Your task to perform on an android device: open app "Google Home" Image 0: 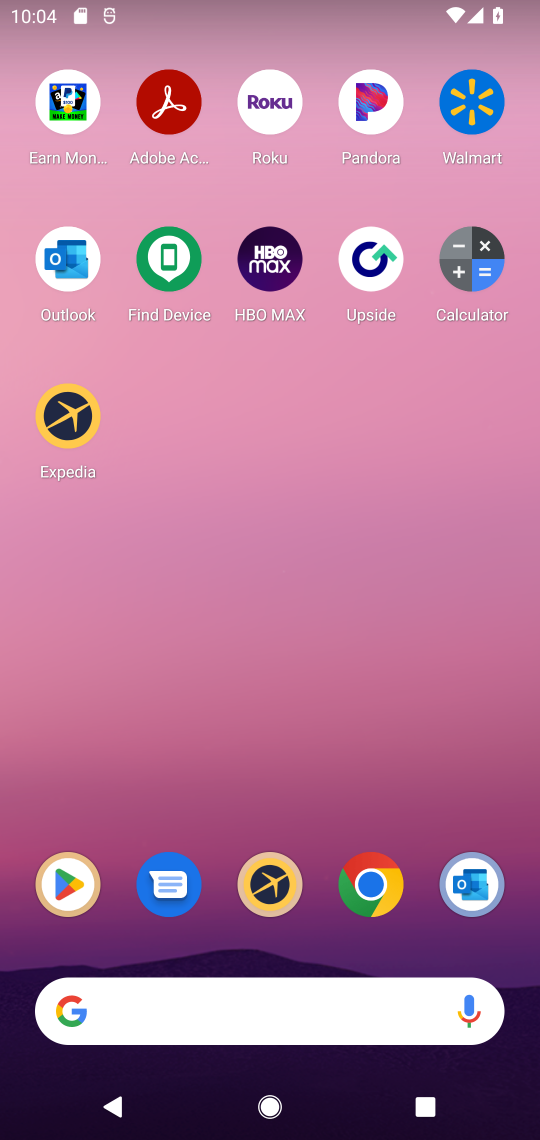
Step 0: click (73, 895)
Your task to perform on an android device: open app "Google Home" Image 1: 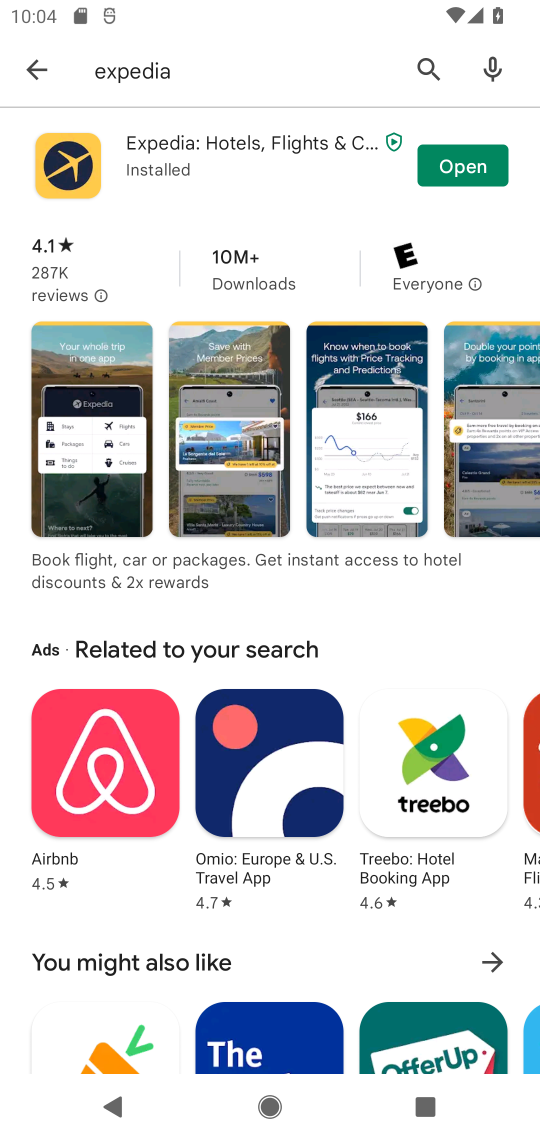
Step 1: click (202, 77)
Your task to perform on an android device: open app "Google Home" Image 2: 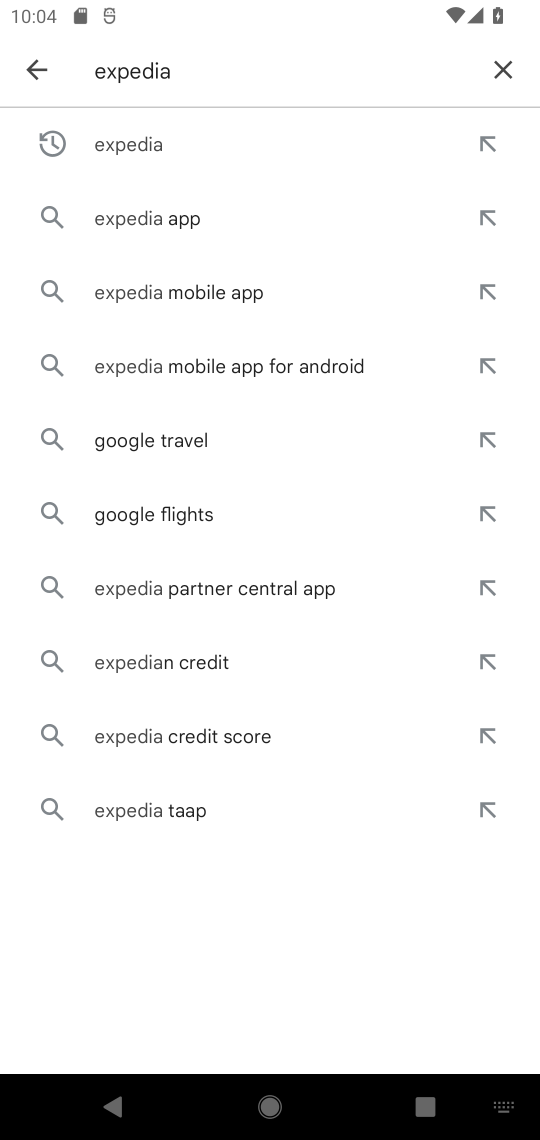
Step 2: click (502, 60)
Your task to perform on an android device: open app "Google Home" Image 3: 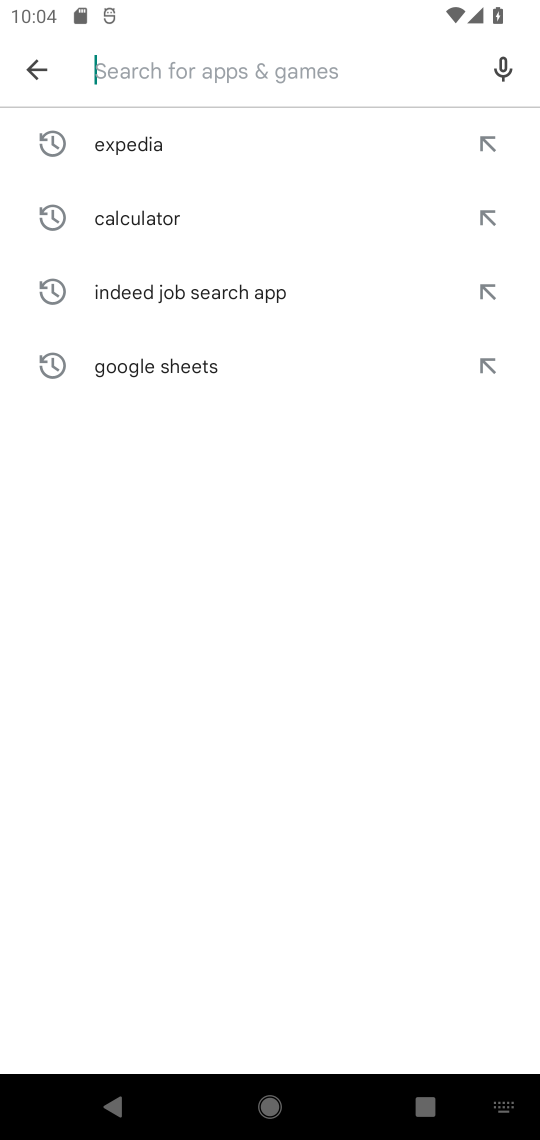
Step 3: type "goog;e home"
Your task to perform on an android device: open app "Google Home" Image 4: 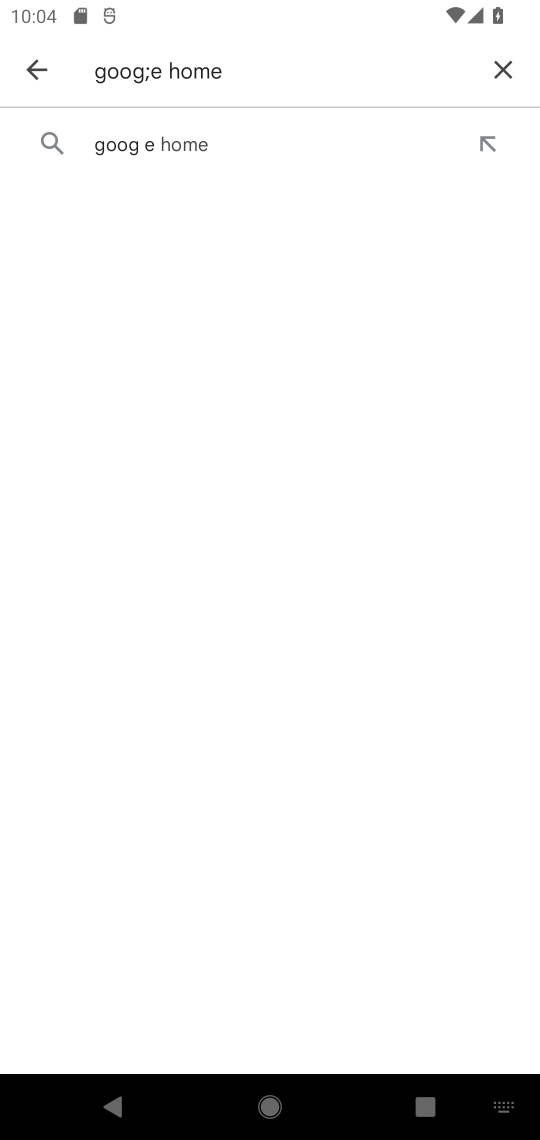
Step 4: click (128, 152)
Your task to perform on an android device: open app "Google Home" Image 5: 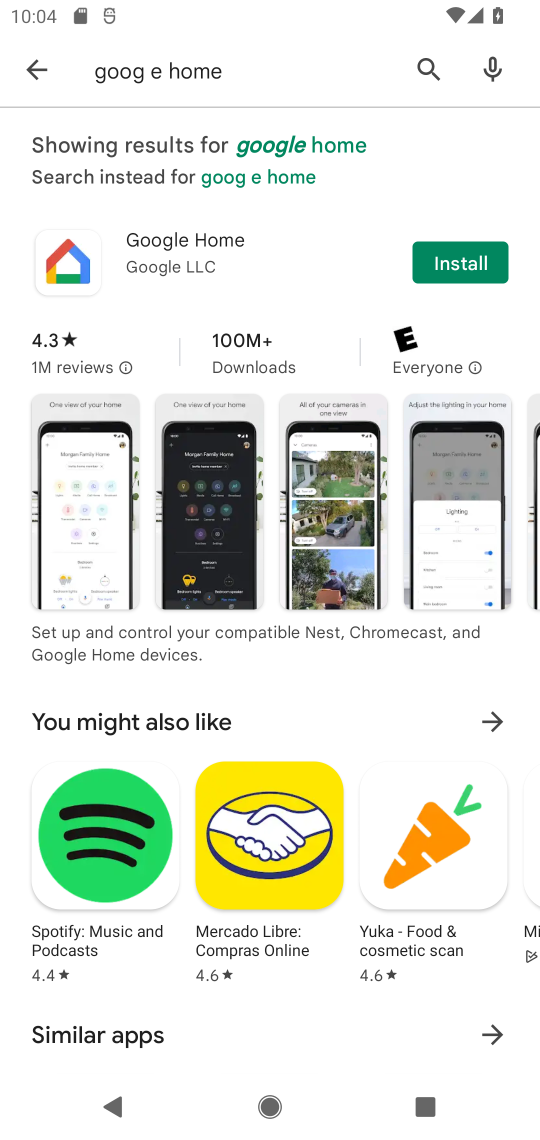
Step 5: click (467, 260)
Your task to perform on an android device: open app "Google Home" Image 6: 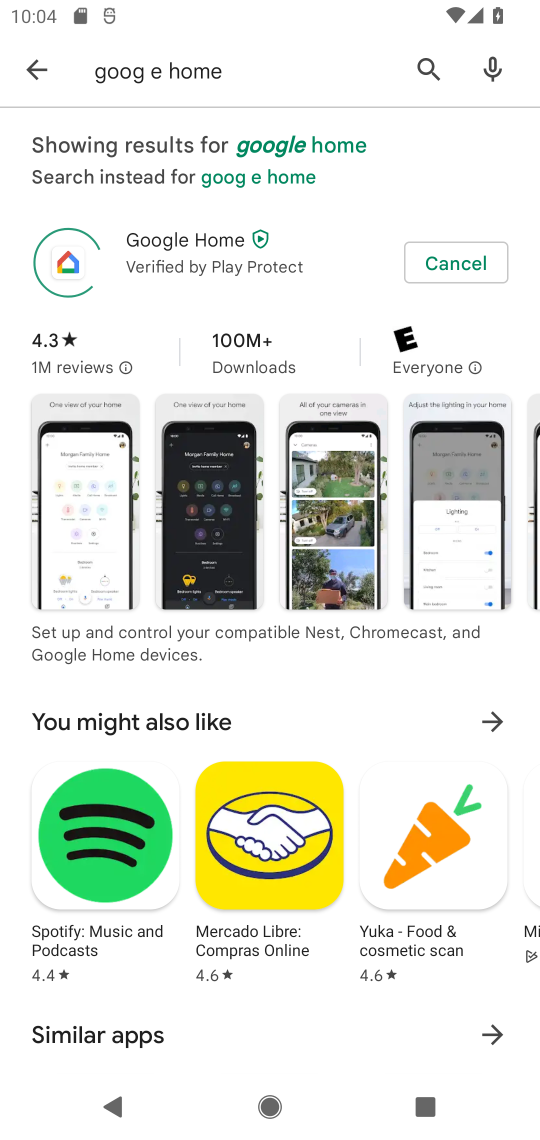
Step 6: click (467, 262)
Your task to perform on an android device: open app "Google Home" Image 7: 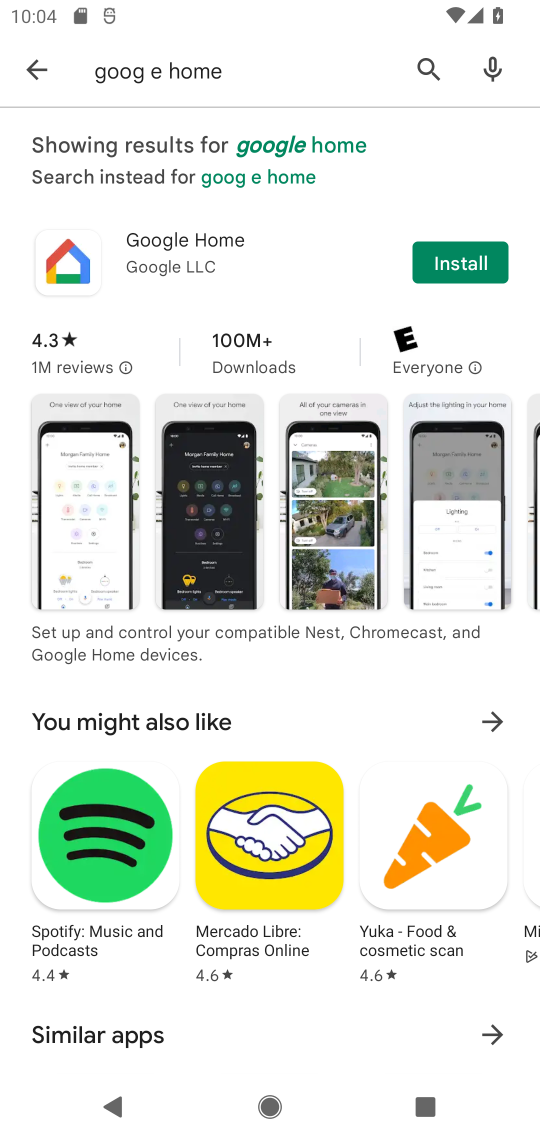
Step 7: task complete